Your task to perform on an android device: turn on airplane mode Image 0: 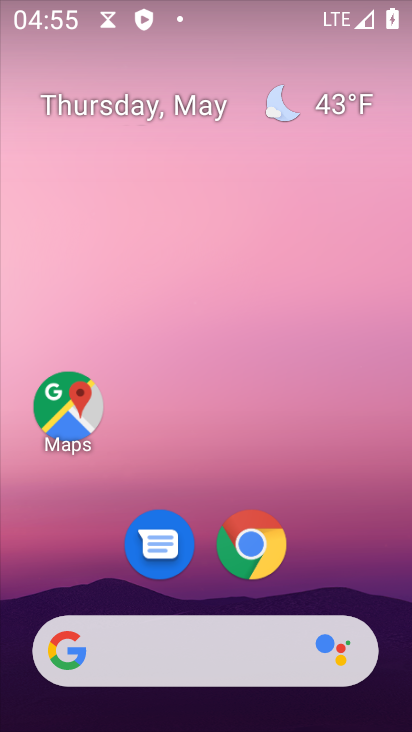
Step 0: drag from (347, 580) to (308, 72)
Your task to perform on an android device: turn on airplane mode Image 1: 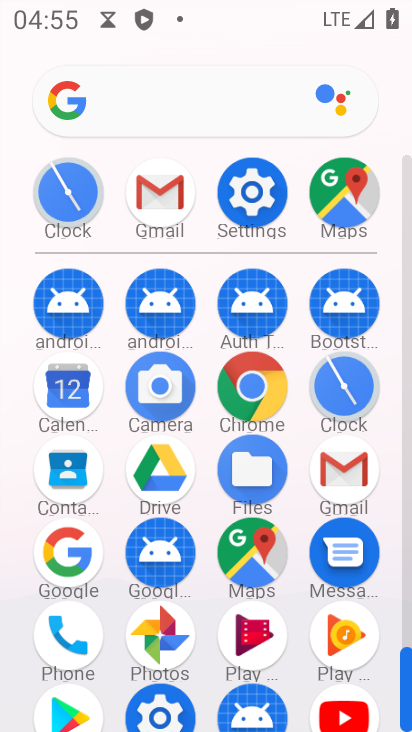
Step 1: click (241, 198)
Your task to perform on an android device: turn on airplane mode Image 2: 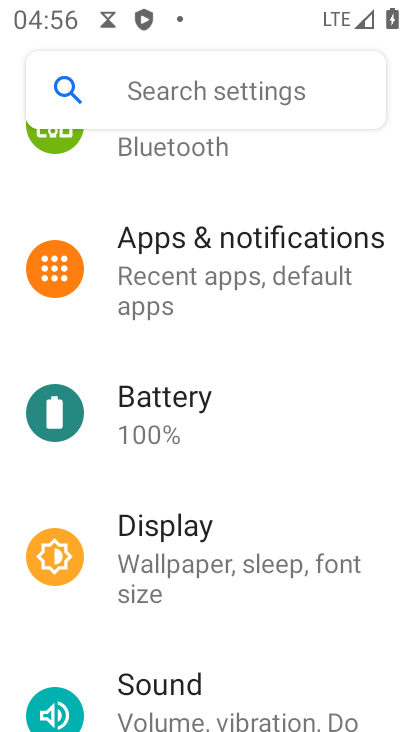
Step 2: drag from (228, 247) to (235, 375)
Your task to perform on an android device: turn on airplane mode Image 3: 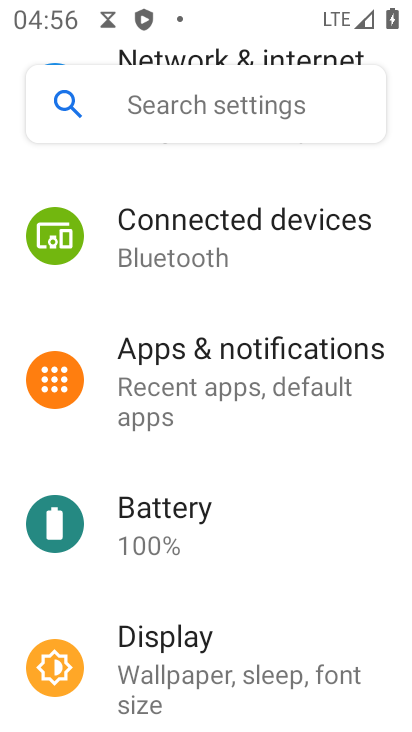
Step 3: drag from (221, 238) to (222, 322)
Your task to perform on an android device: turn on airplane mode Image 4: 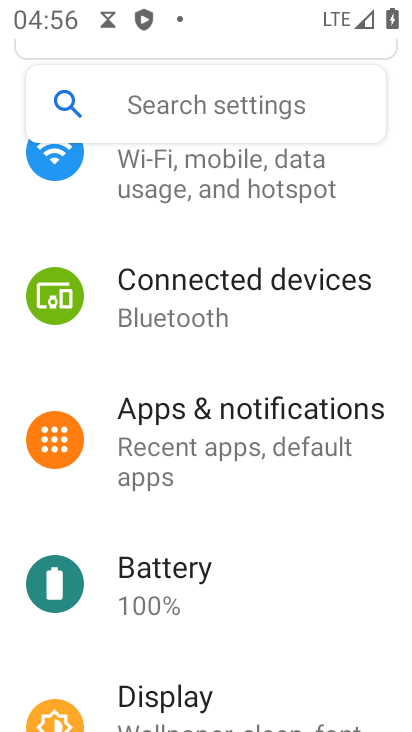
Step 4: drag from (216, 231) to (236, 343)
Your task to perform on an android device: turn on airplane mode Image 5: 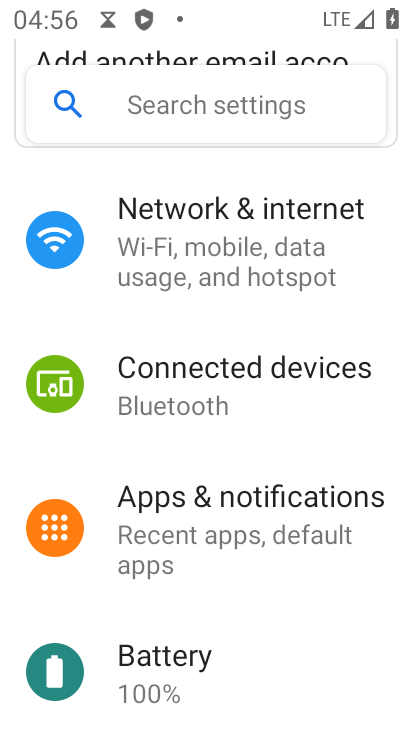
Step 5: click (236, 276)
Your task to perform on an android device: turn on airplane mode Image 6: 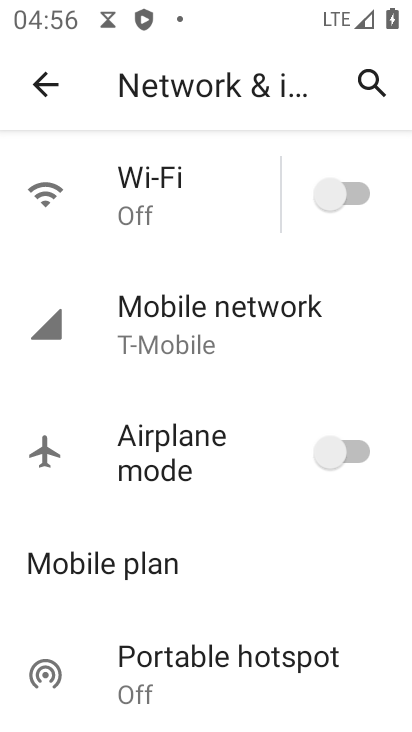
Step 6: click (349, 441)
Your task to perform on an android device: turn on airplane mode Image 7: 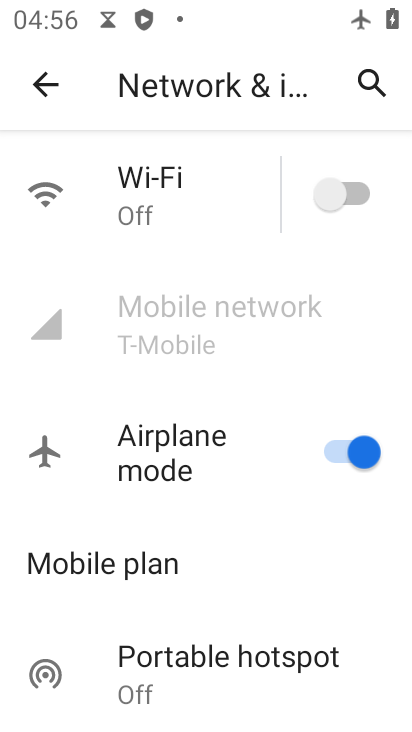
Step 7: task complete